Your task to perform on an android device: View the shopping cart on amazon. Search for macbook on amazon, select the first entry, and add it to the cart. Image 0: 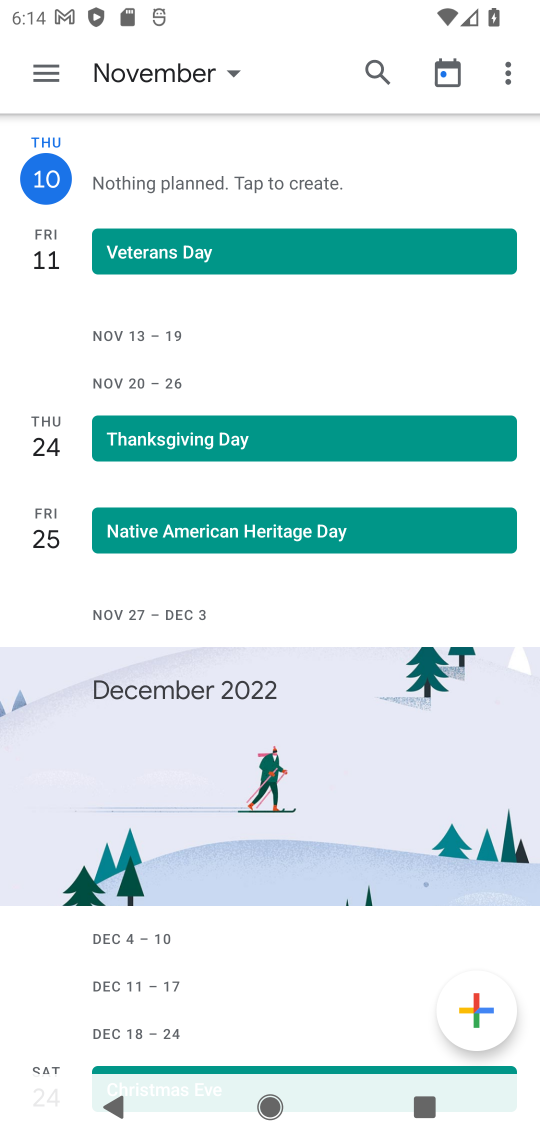
Step 0: press home button
Your task to perform on an android device: View the shopping cart on amazon. Search for macbook on amazon, select the first entry, and add it to the cart. Image 1: 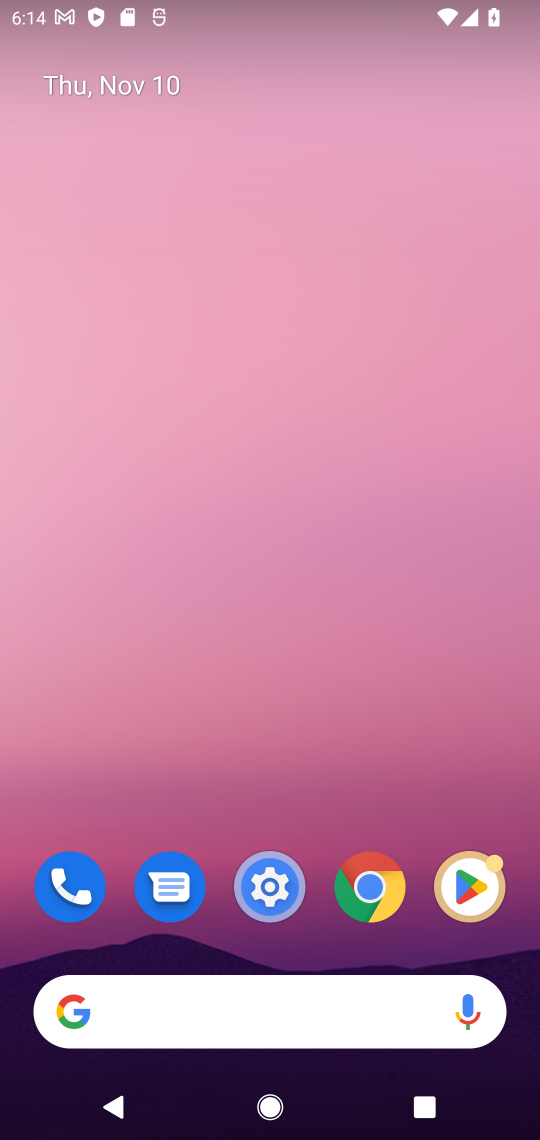
Step 1: click (166, 995)
Your task to perform on an android device: View the shopping cart on amazon. Search for macbook on amazon, select the first entry, and add it to the cart. Image 2: 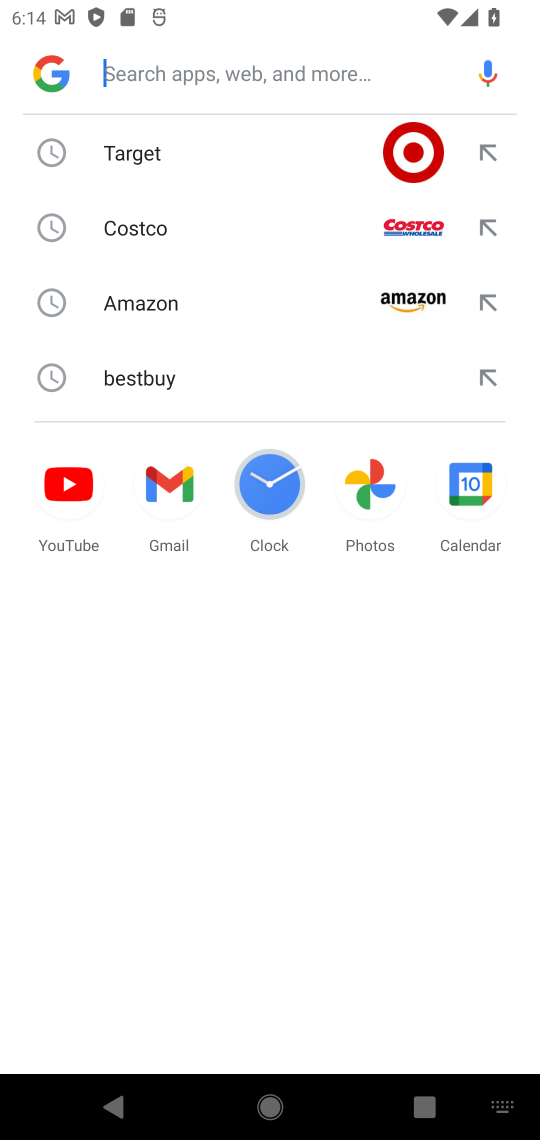
Step 2: click (146, 296)
Your task to perform on an android device: View the shopping cart on amazon. Search for macbook on amazon, select the first entry, and add it to the cart. Image 3: 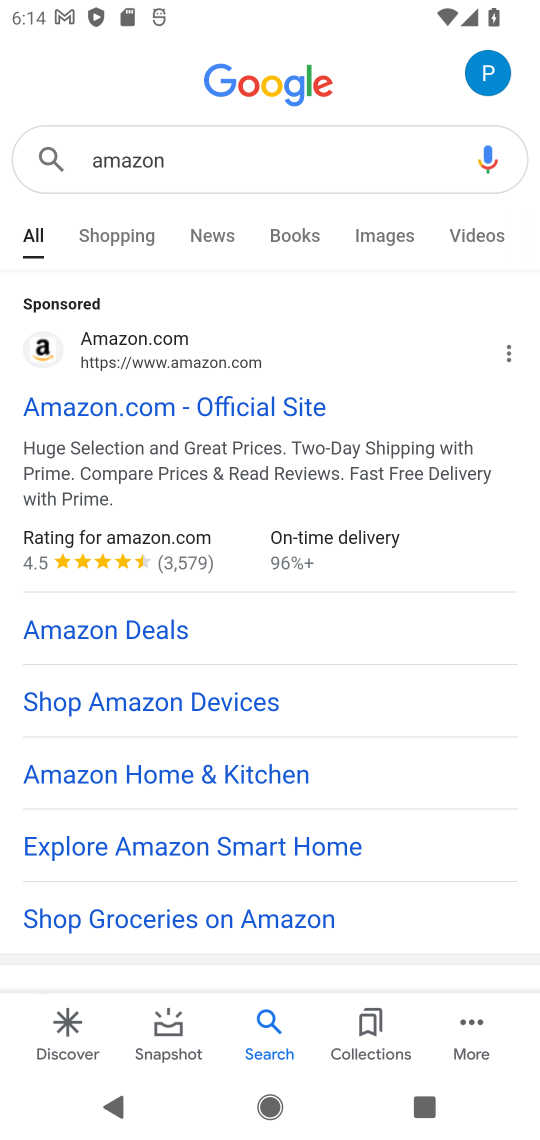
Step 3: click (111, 395)
Your task to perform on an android device: View the shopping cart on amazon. Search for macbook on amazon, select the first entry, and add it to the cart. Image 4: 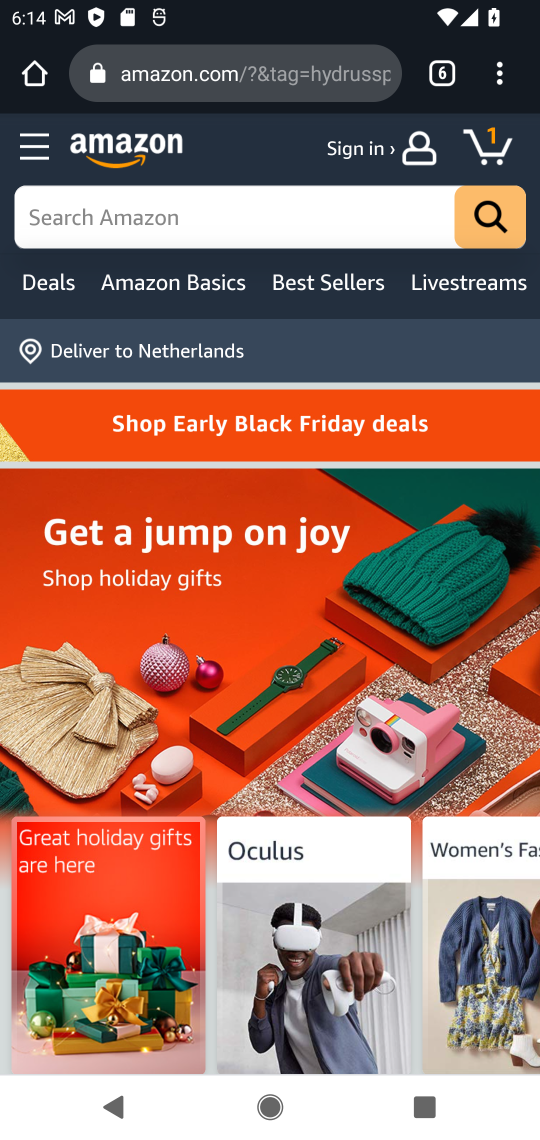
Step 4: click (87, 209)
Your task to perform on an android device: View the shopping cart on amazon. Search for macbook on amazon, select the first entry, and add it to the cart. Image 5: 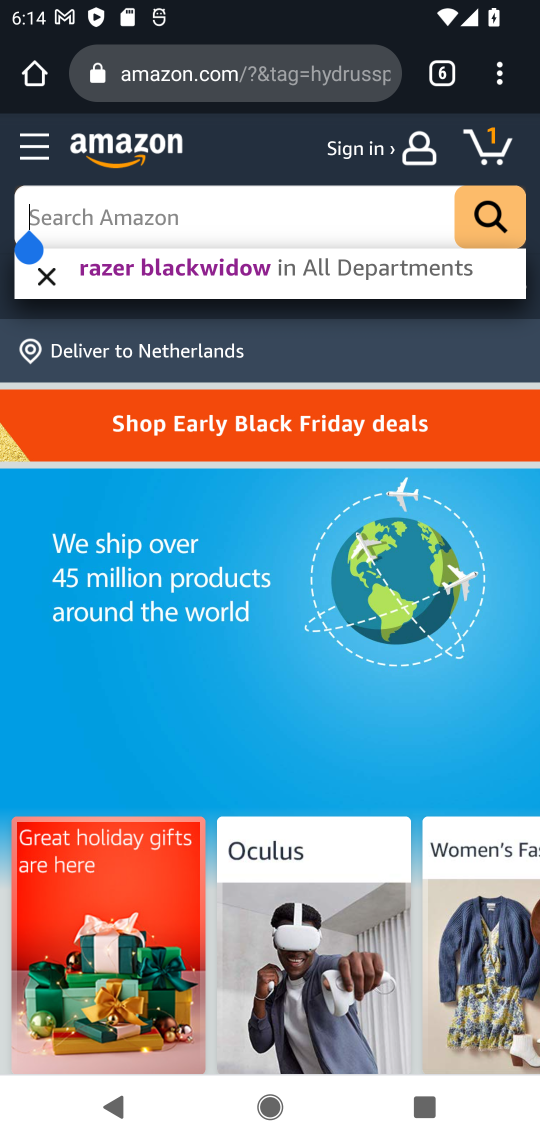
Step 5: type "macbook"
Your task to perform on an android device: View the shopping cart on amazon. Search for macbook on amazon, select the first entry, and add it to the cart. Image 6: 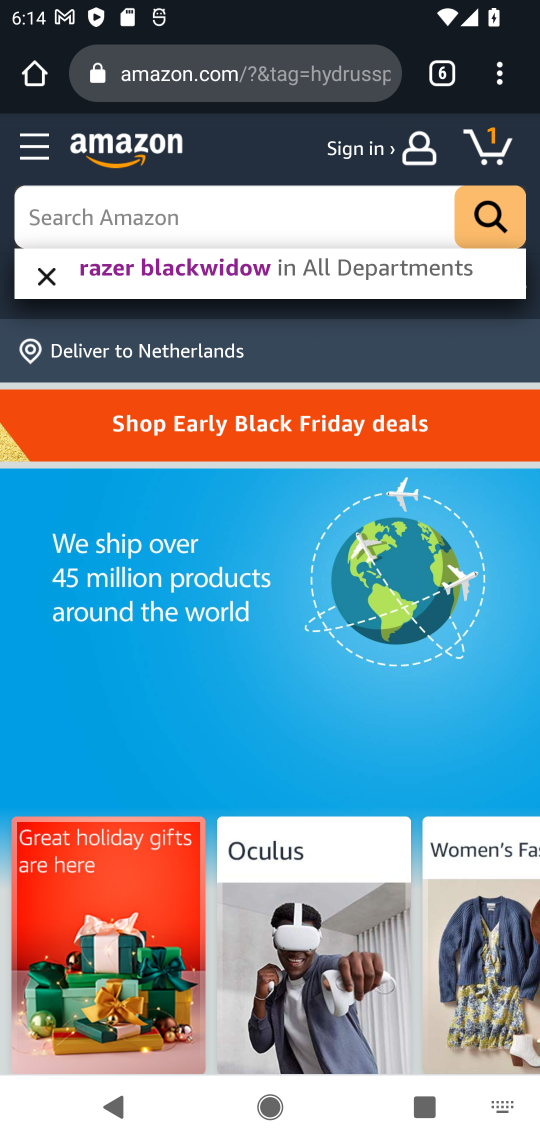
Step 6: type ""
Your task to perform on an android device: View the shopping cart on amazon. Search for macbook on amazon, select the first entry, and add it to the cart. Image 7: 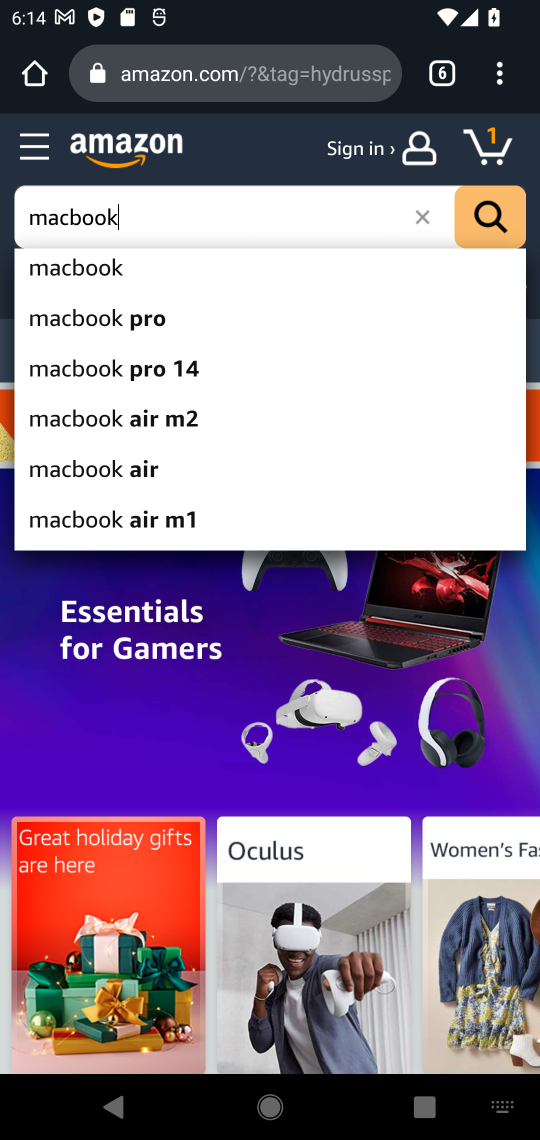
Step 7: click (68, 271)
Your task to perform on an android device: View the shopping cart on amazon. Search for macbook on amazon, select the first entry, and add it to the cart. Image 8: 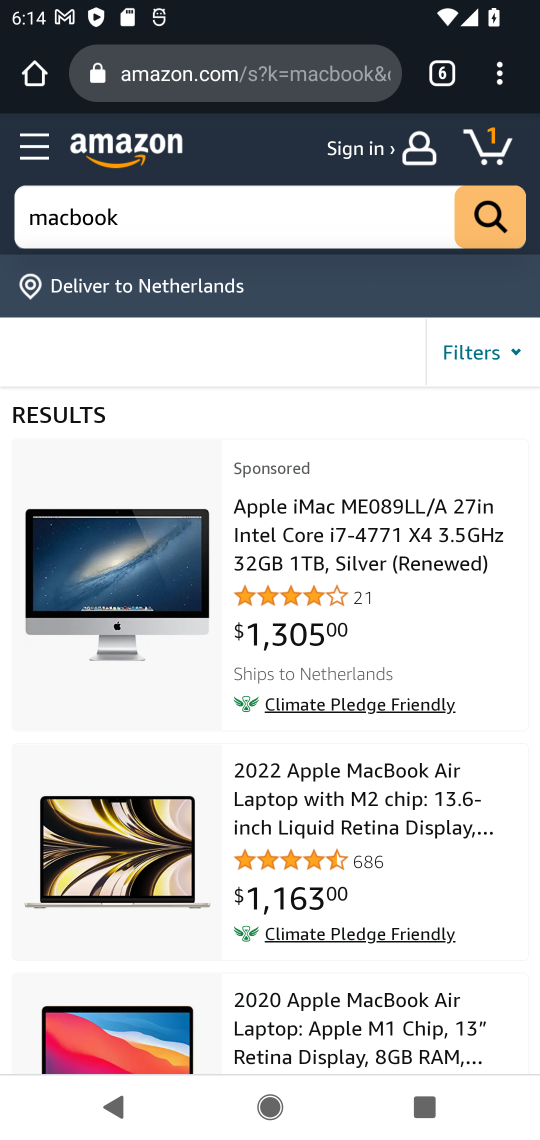
Step 8: click (295, 531)
Your task to perform on an android device: View the shopping cart on amazon. Search for macbook on amazon, select the first entry, and add it to the cart. Image 9: 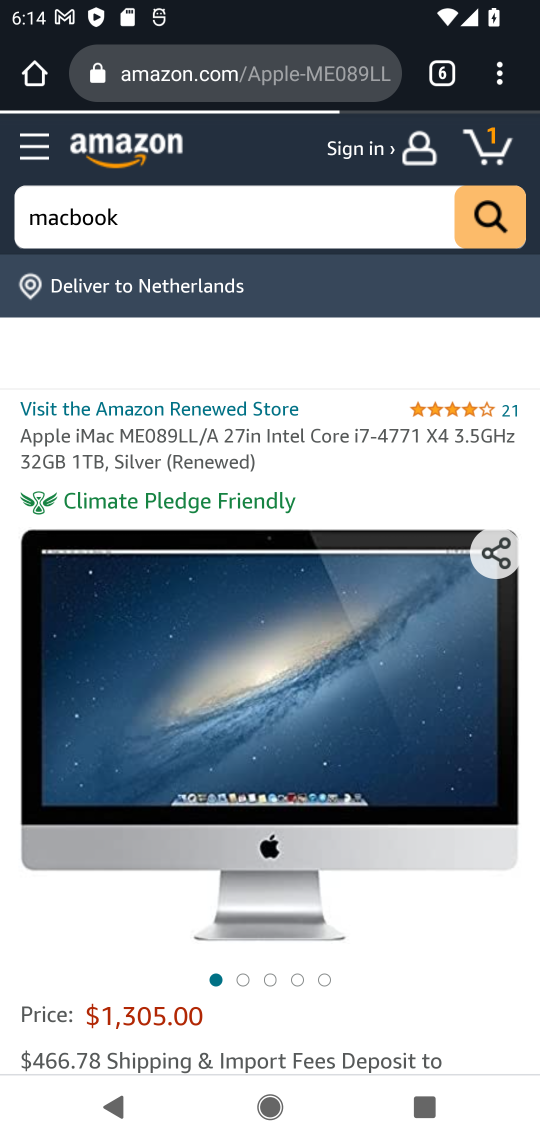
Step 9: drag from (371, 930) to (346, 481)
Your task to perform on an android device: View the shopping cart on amazon. Search for macbook on amazon, select the first entry, and add it to the cart. Image 10: 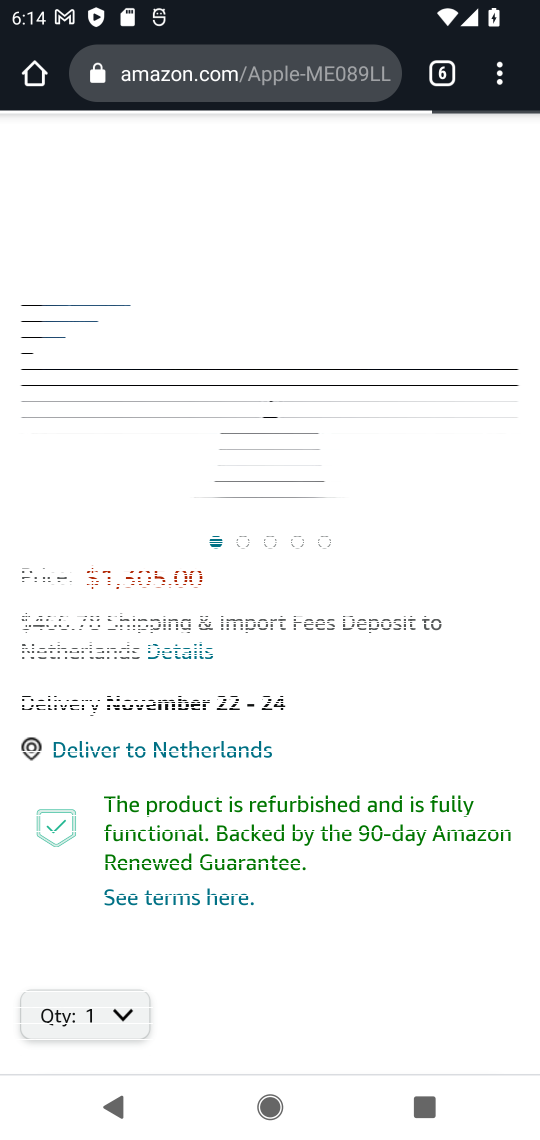
Step 10: drag from (354, 912) to (289, 526)
Your task to perform on an android device: View the shopping cart on amazon. Search for macbook on amazon, select the first entry, and add it to the cart. Image 11: 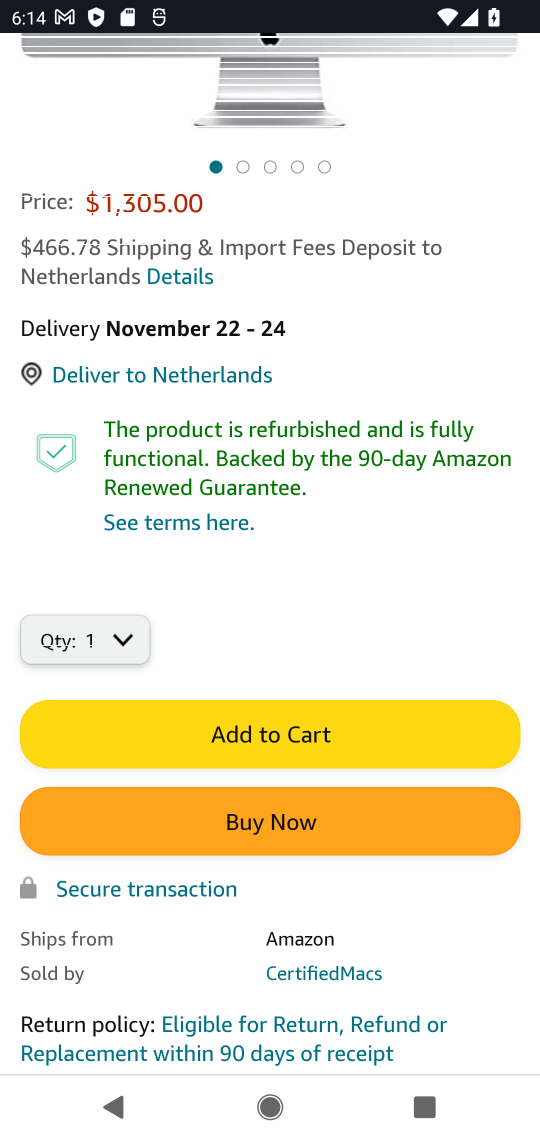
Step 11: click (279, 732)
Your task to perform on an android device: View the shopping cart on amazon. Search for macbook on amazon, select the first entry, and add it to the cart. Image 12: 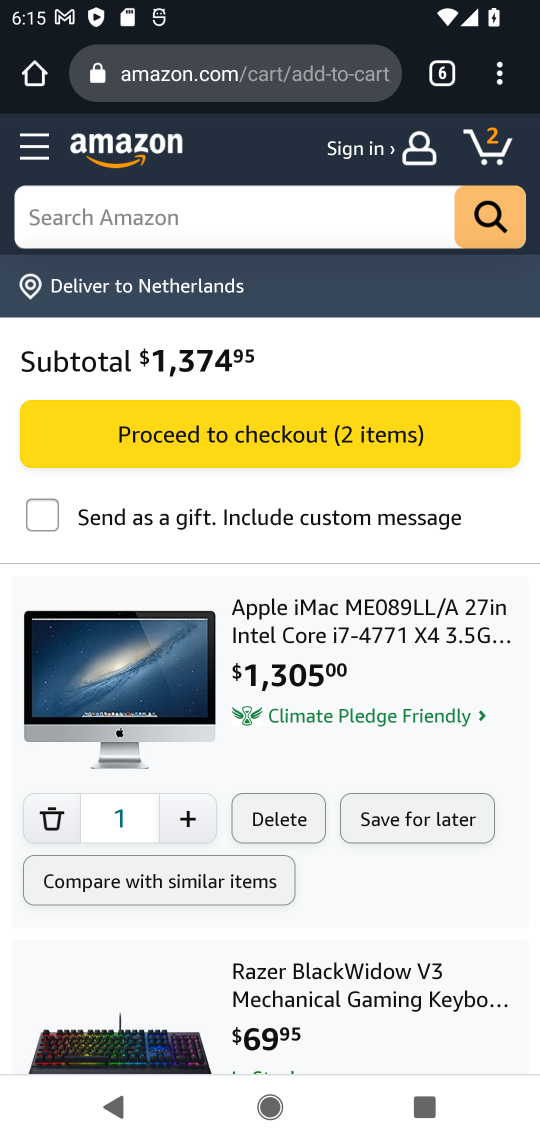
Step 12: task complete